Your task to perform on an android device: Find coffee shops on Maps Image 0: 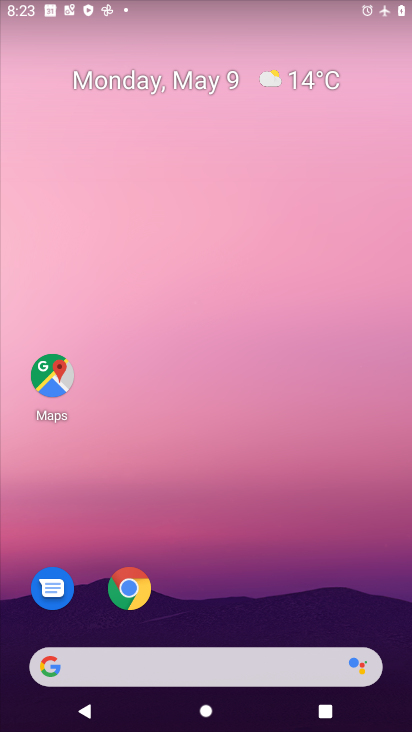
Step 0: drag from (326, 593) to (216, 35)
Your task to perform on an android device: Find coffee shops on Maps Image 1: 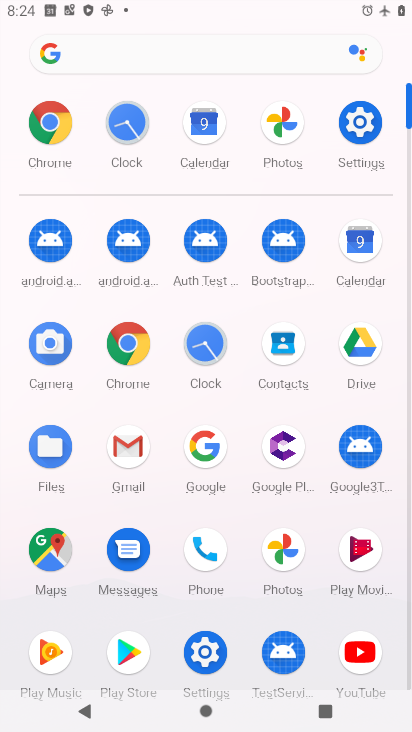
Step 1: click (50, 543)
Your task to perform on an android device: Find coffee shops on Maps Image 2: 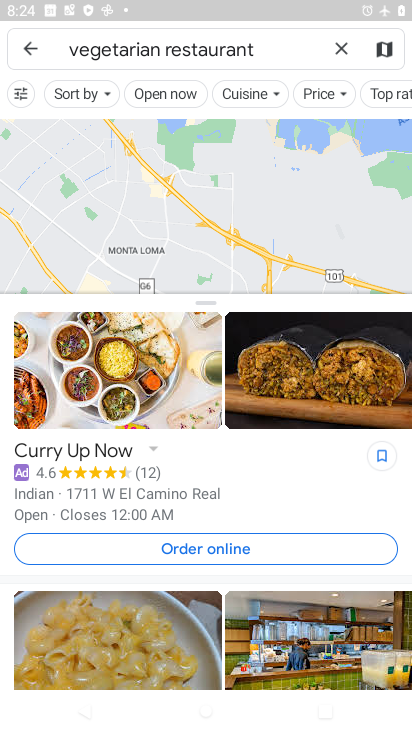
Step 2: click (338, 51)
Your task to perform on an android device: Find coffee shops on Maps Image 3: 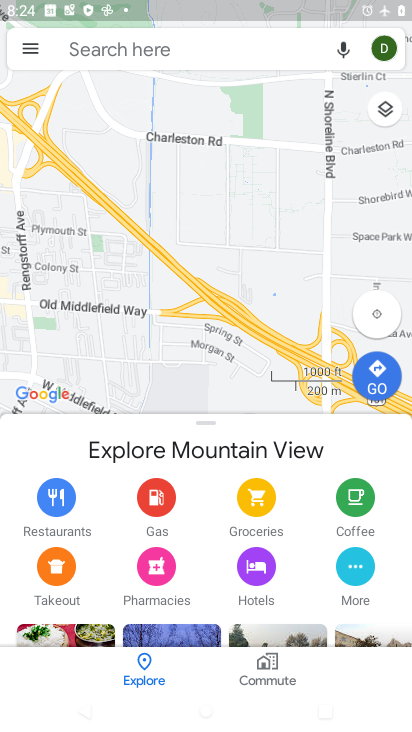
Step 3: click (145, 58)
Your task to perform on an android device: Find coffee shops on Maps Image 4: 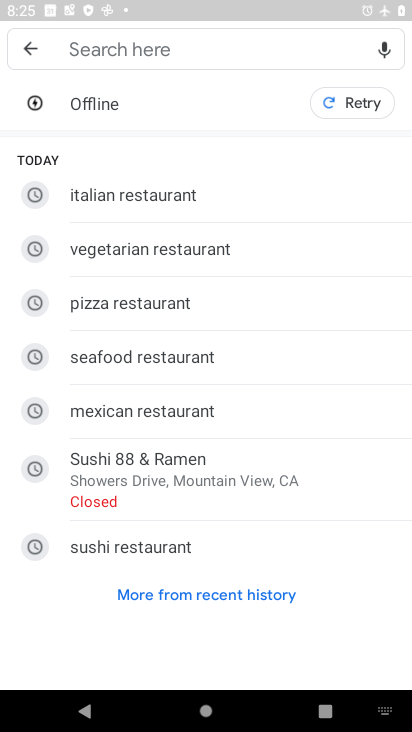
Step 4: type "coffe"
Your task to perform on an android device: Find coffee shops on Maps Image 5: 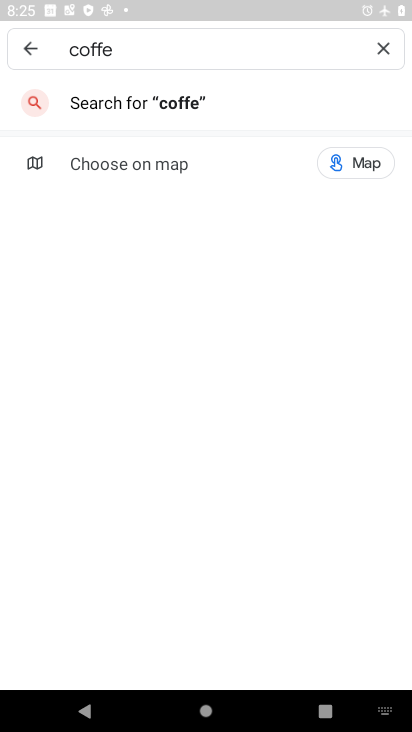
Step 5: click (375, 45)
Your task to perform on an android device: Find coffee shops on Maps Image 6: 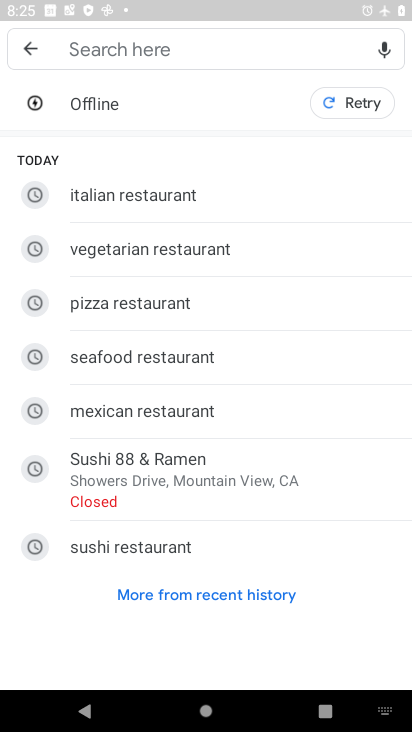
Step 6: click (158, 50)
Your task to perform on an android device: Find coffee shops on Maps Image 7: 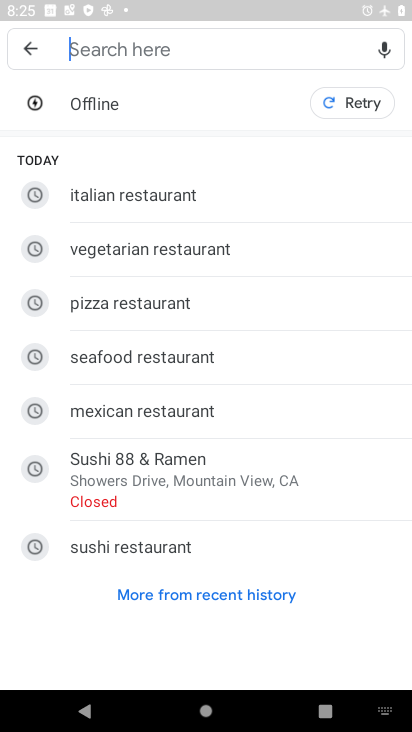
Step 7: type "coffee"
Your task to perform on an android device: Find coffee shops on Maps Image 8: 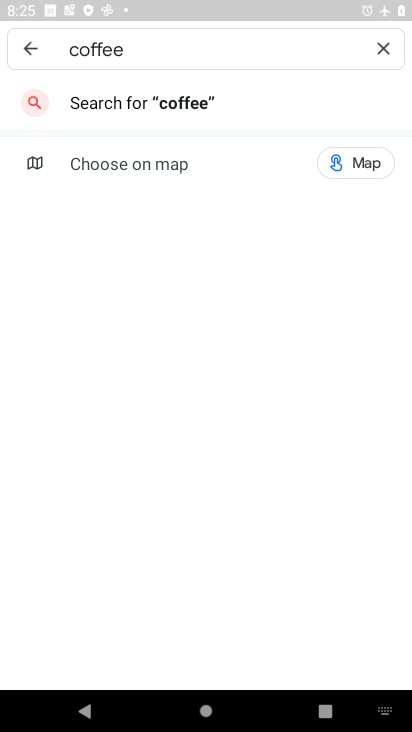
Step 8: task complete